Your task to perform on an android device: What's the weather today? Image 0: 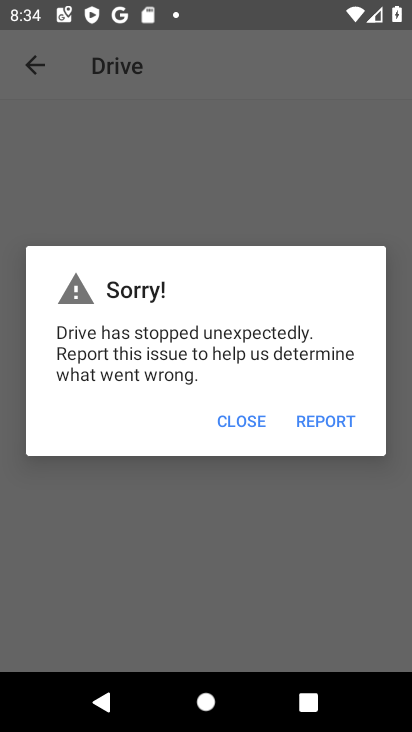
Step 0: press home button
Your task to perform on an android device: What's the weather today? Image 1: 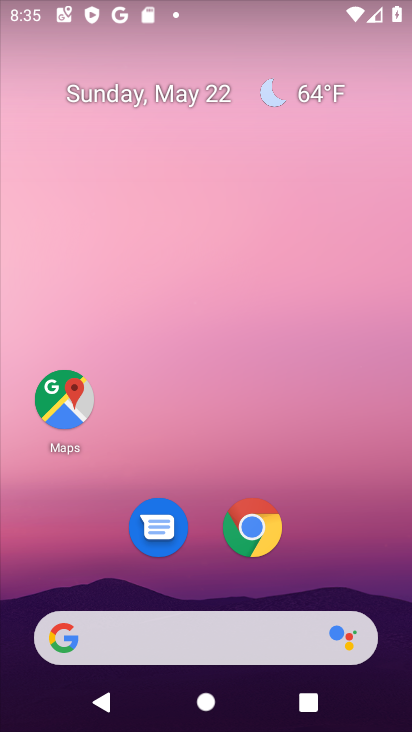
Step 1: click (305, 92)
Your task to perform on an android device: What's the weather today? Image 2: 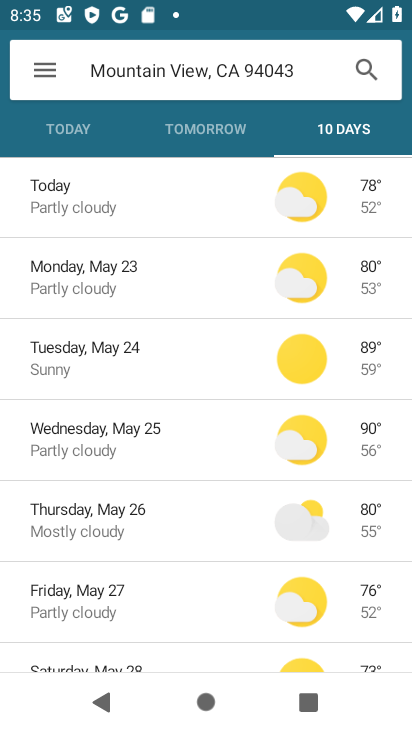
Step 2: click (75, 126)
Your task to perform on an android device: What's the weather today? Image 3: 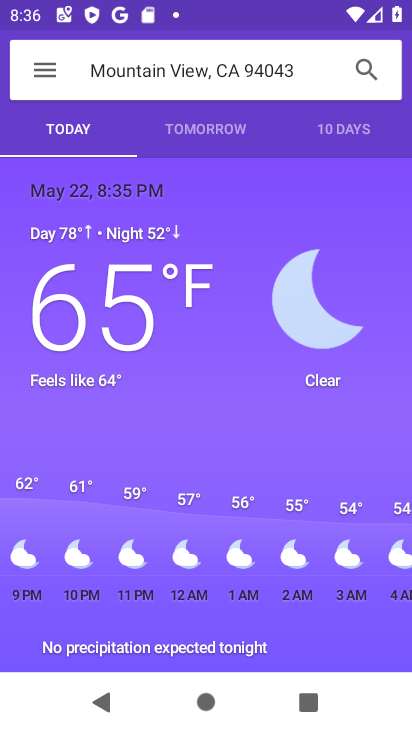
Step 3: task complete